Your task to perform on an android device: turn notification dots on Image 0: 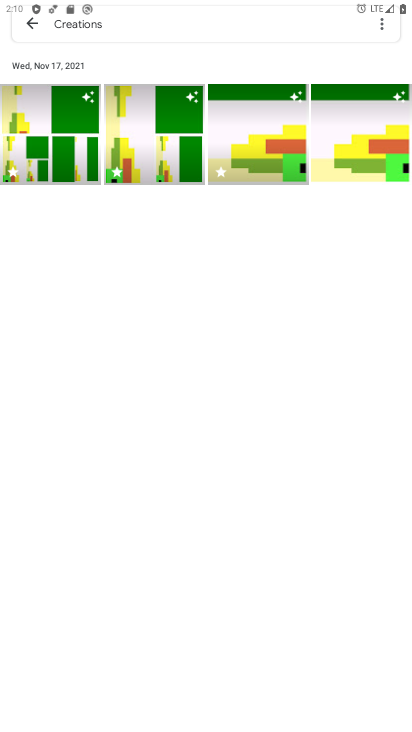
Step 0: press home button
Your task to perform on an android device: turn notification dots on Image 1: 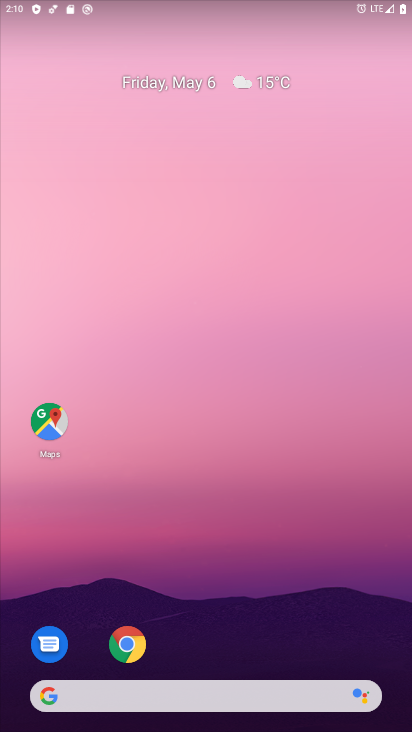
Step 1: drag from (224, 622) to (228, 129)
Your task to perform on an android device: turn notification dots on Image 2: 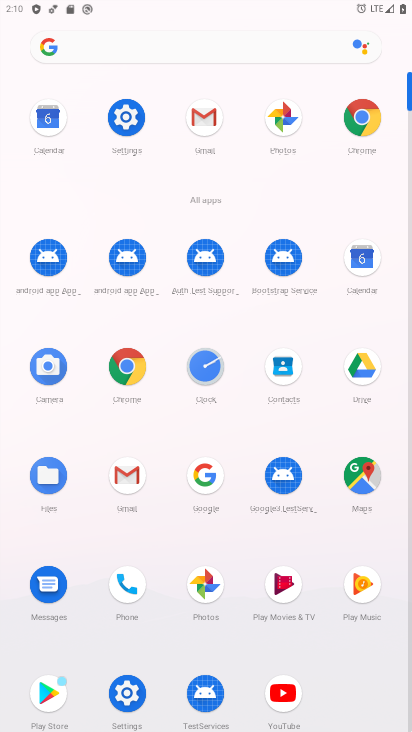
Step 2: click (113, 115)
Your task to perform on an android device: turn notification dots on Image 3: 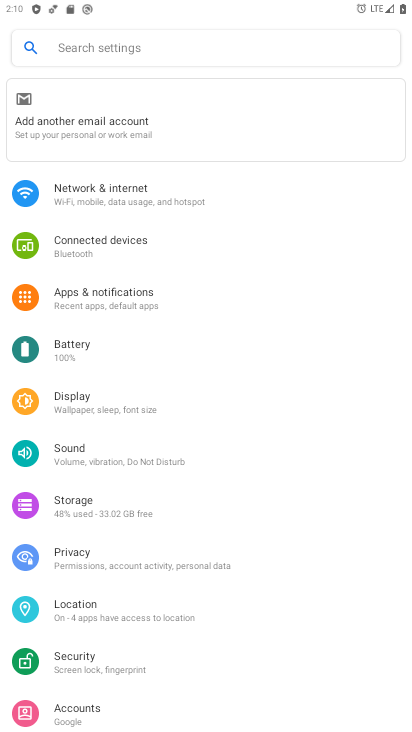
Step 3: click (148, 296)
Your task to perform on an android device: turn notification dots on Image 4: 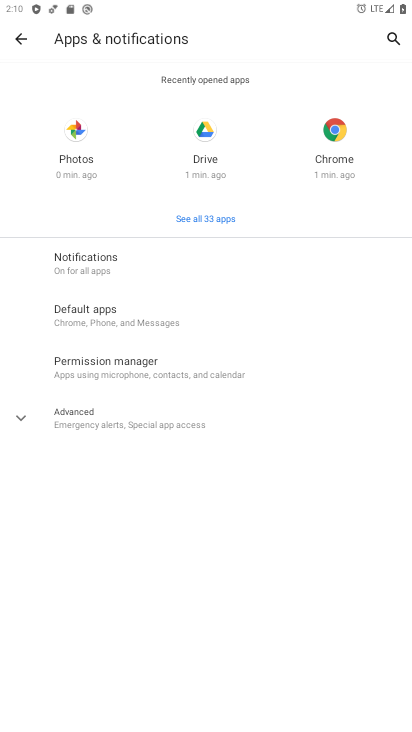
Step 4: click (139, 252)
Your task to perform on an android device: turn notification dots on Image 5: 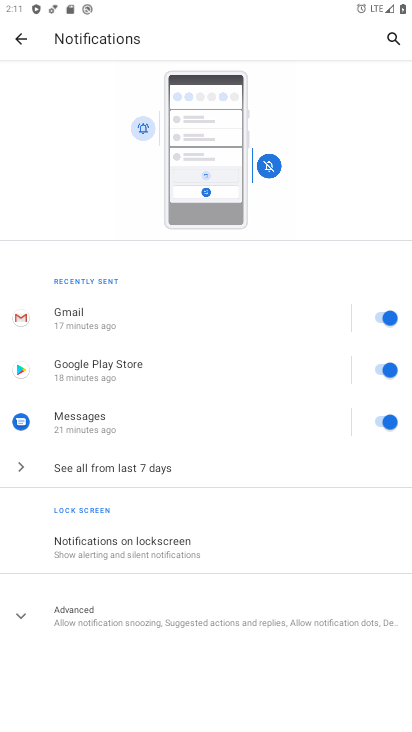
Step 5: click (244, 623)
Your task to perform on an android device: turn notification dots on Image 6: 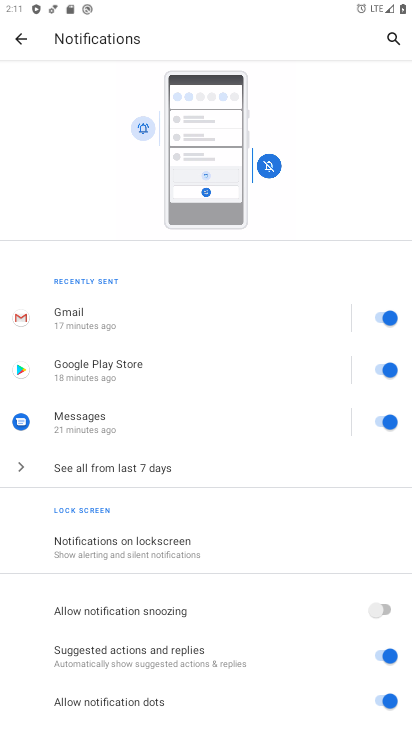
Step 6: task complete